Your task to perform on an android device: Open wifi settings Image 0: 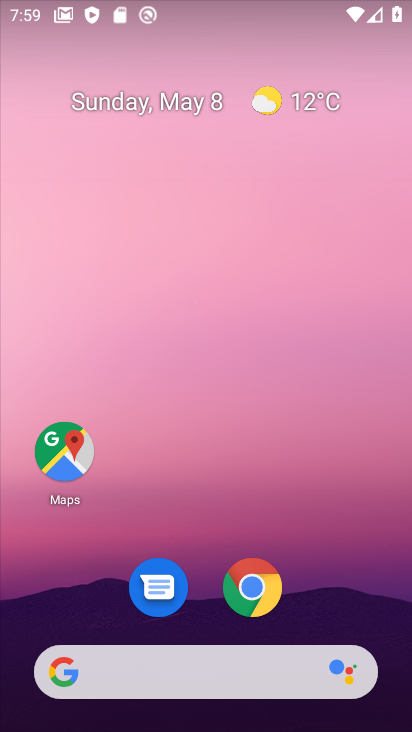
Step 0: drag from (357, 619) to (363, 226)
Your task to perform on an android device: Open wifi settings Image 1: 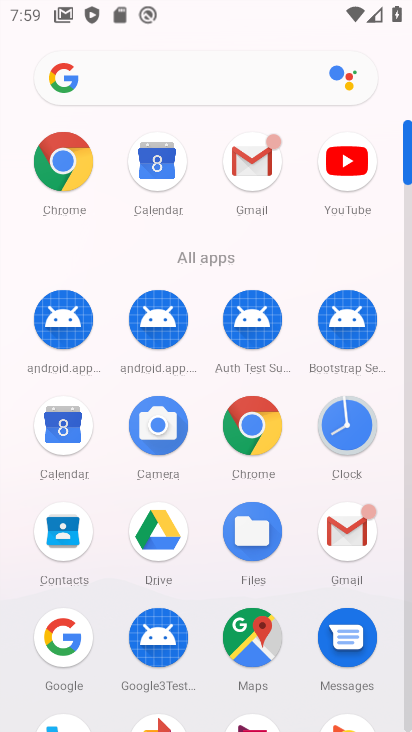
Step 1: drag from (175, 542) to (245, 188)
Your task to perform on an android device: Open wifi settings Image 2: 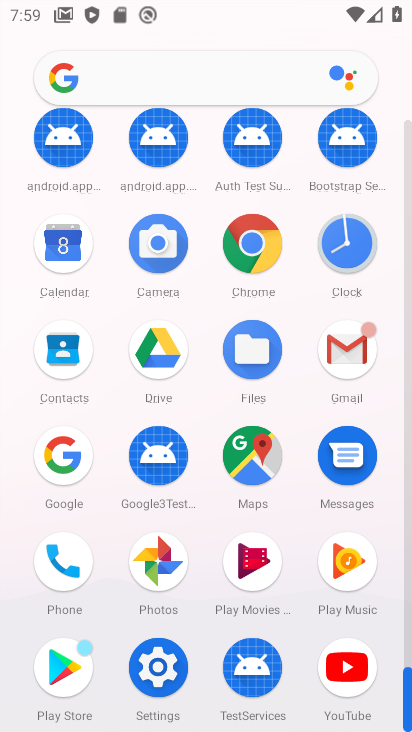
Step 2: click (153, 657)
Your task to perform on an android device: Open wifi settings Image 3: 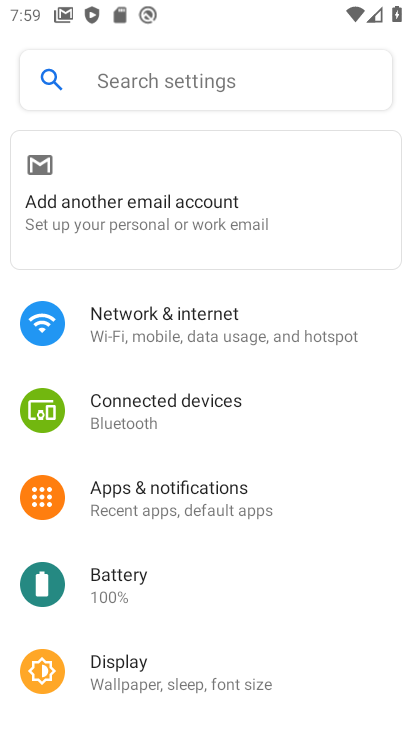
Step 3: click (281, 329)
Your task to perform on an android device: Open wifi settings Image 4: 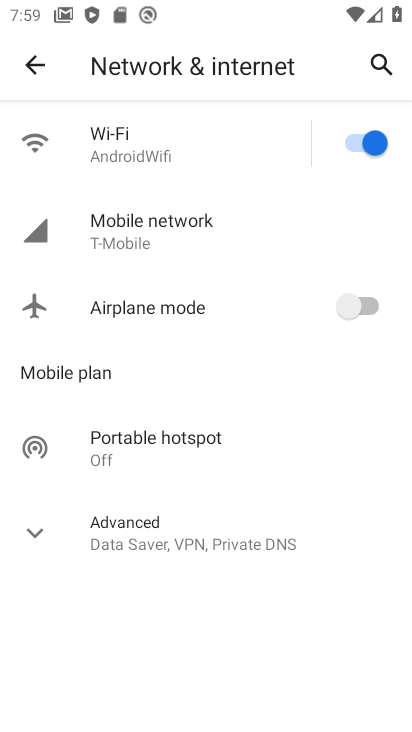
Step 4: click (242, 182)
Your task to perform on an android device: Open wifi settings Image 5: 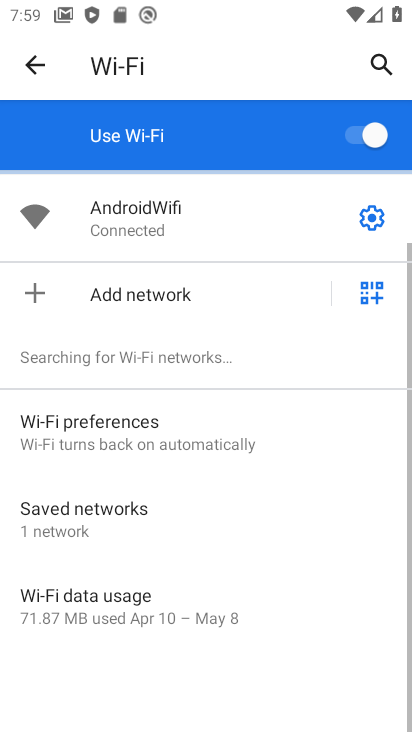
Step 5: click (374, 225)
Your task to perform on an android device: Open wifi settings Image 6: 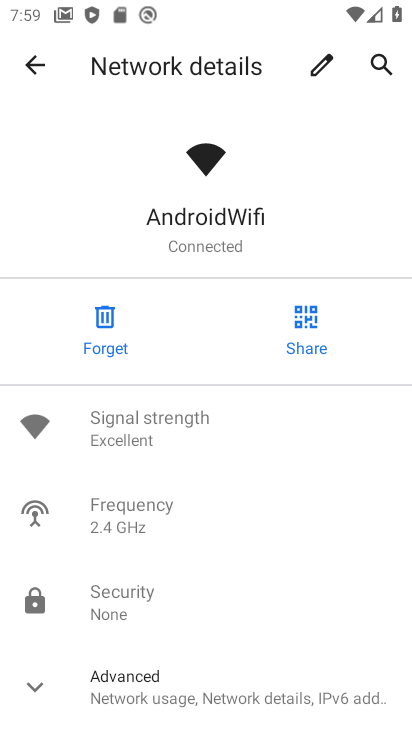
Step 6: task complete